Your task to perform on an android device: turn on showing notifications on the lock screen Image 0: 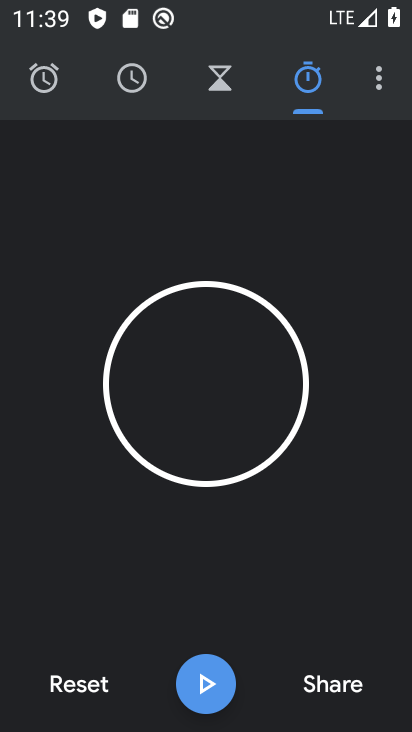
Step 0: press back button
Your task to perform on an android device: turn on showing notifications on the lock screen Image 1: 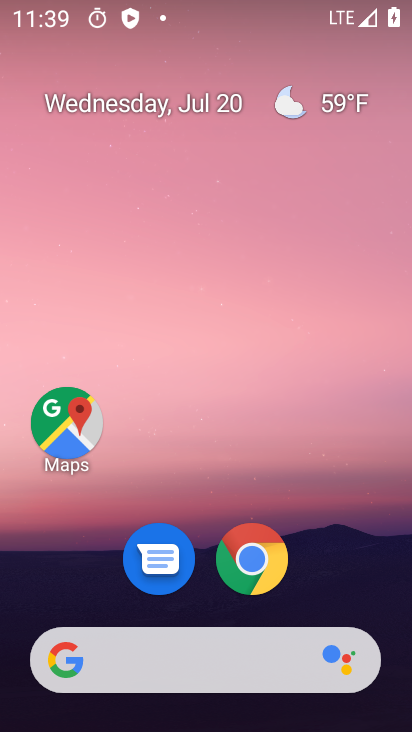
Step 1: drag from (65, 580) to (207, 37)
Your task to perform on an android device: turn on showing notifications on the lock screen Image 2: 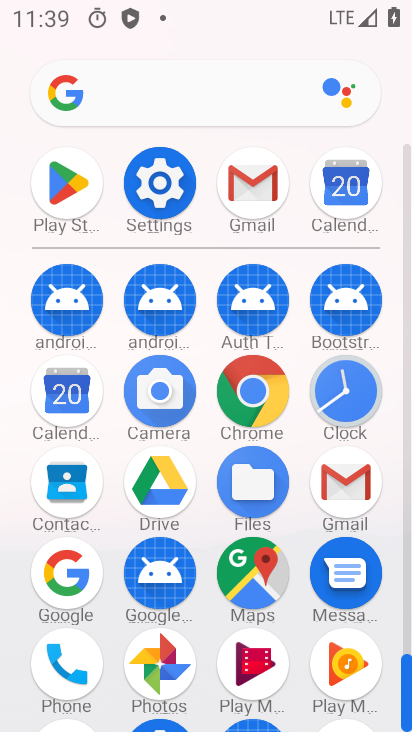
Step 2: click (142, 176)
Your task to perform on an android device: turn on showing notifications on the lock screen Image 3: 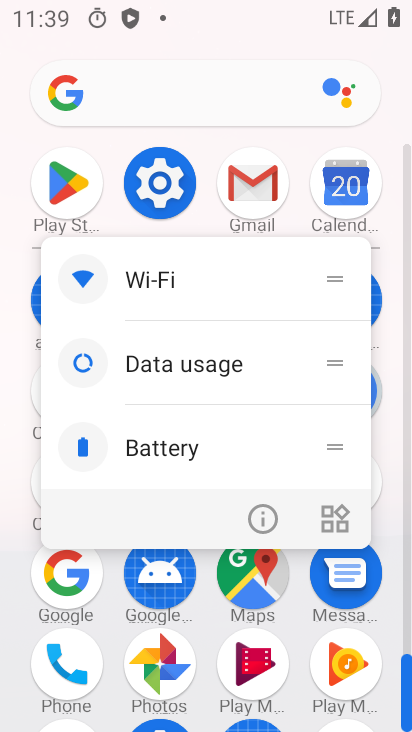
Step 3: click (162, 169)
Your task to perform on an android device: turn on showing notifications on the lock screen Image 4: 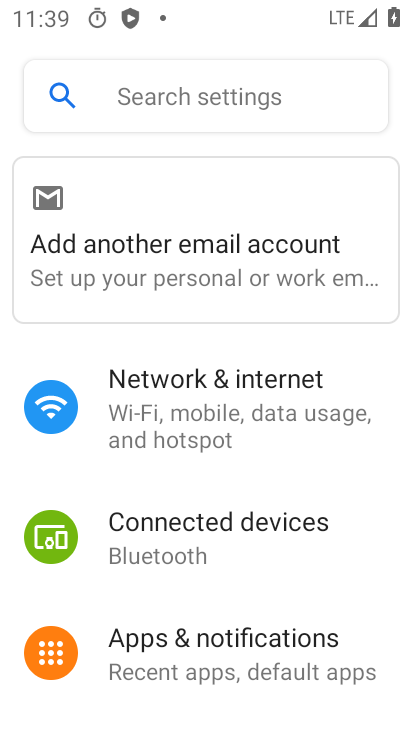
Step 4: click (195, 646)
Your task to perform on an android device: turn on showing notifications on the lock screen Image 5: 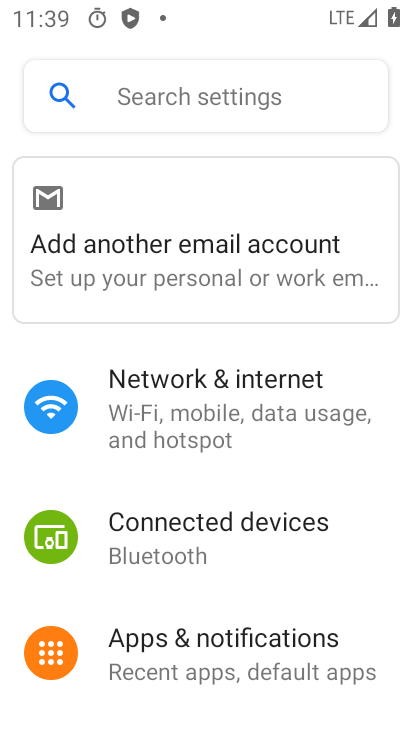
Step 5: drag from (193, 644) to (259, 375)
Your task to perform on an android device: turn on showing notifications on the lock screen Image 6: 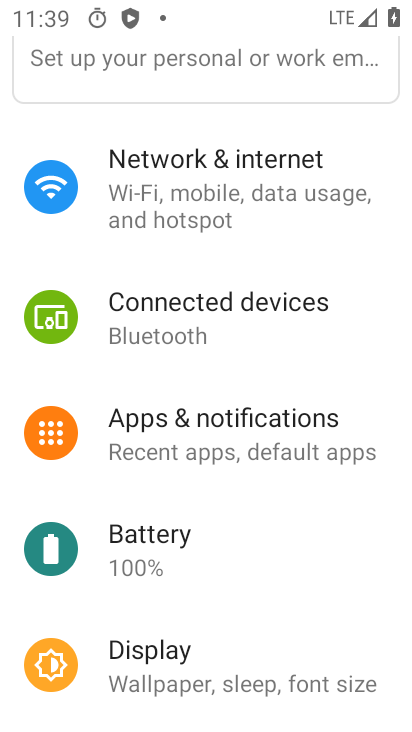
Step 6: click (199, 420)
Your task to perform on an android device: turn on showing notifications on the lock screen Image 7: 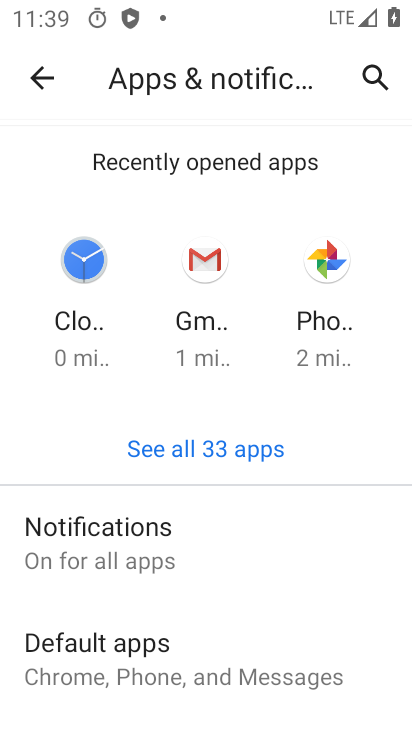
Step 7: drag from (181, 672) to (258, 258)
Your task to perform on an android device: turn on showing notifications on the lock screen Image 8: 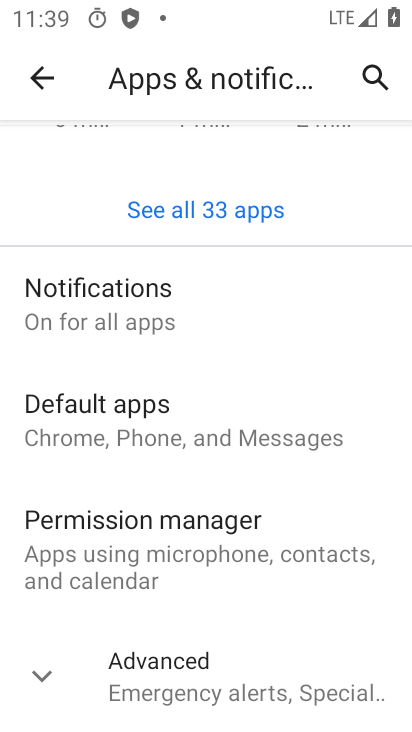
Step 8: click (178, 666)
Your task to perform on an android device: turn on showing notifications on the lock screen Image 9: 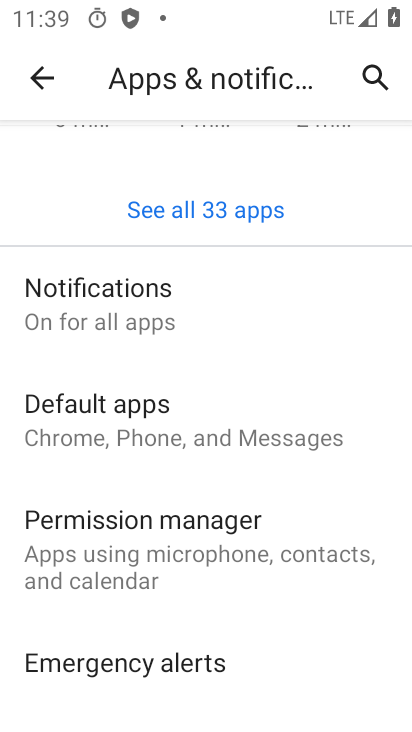
Step 9: drag from (174, 619) to (251, 242)
Your task to perform on an android device: turn on showing notifications on the lock screen Image 10: 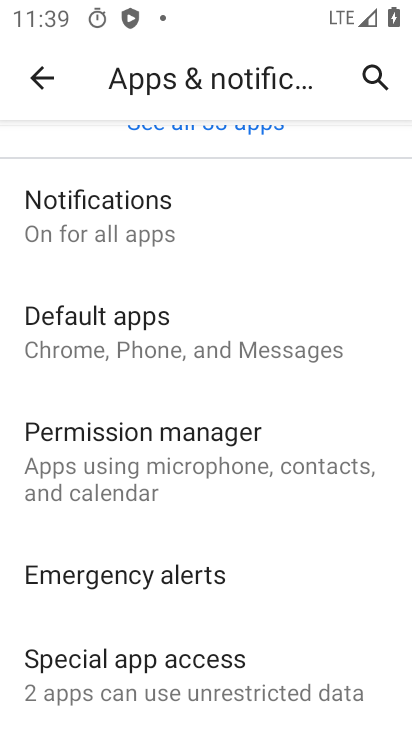
Step 10: drag from (163, 302) to (163, 532)
Your task to perform on an android device: turn on showing notifications on the lock screen Image 11: 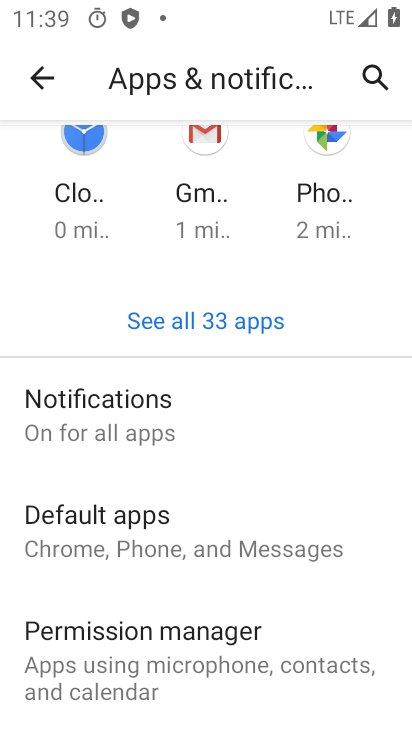
Step 11: click (110, 409)
Your task to perform on an android device: turn on showing notifications on the lock screen Image 12: 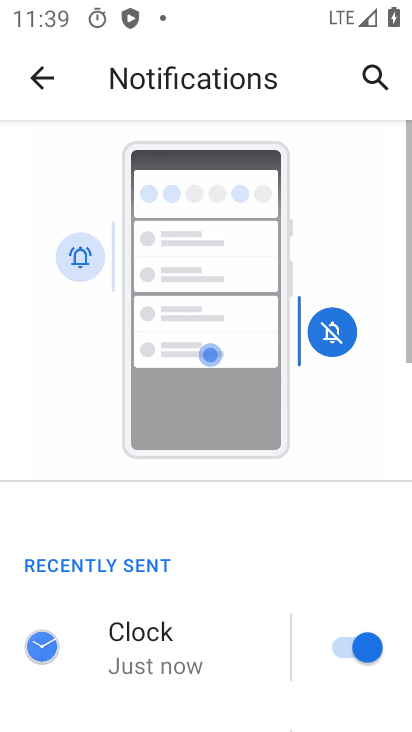
Step 12: drag from (125, 665) to (217, 63)
Your task to perform on an android device: turn on showing notifications on the lock screen Image 13: 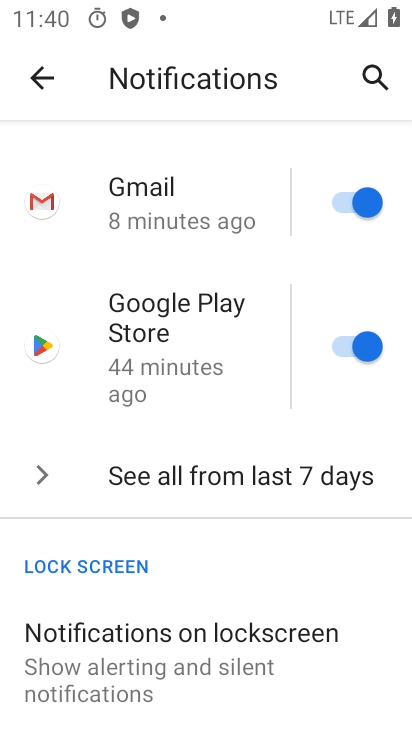
Step 13: click (147, 645)
Your task to perform on an android device: turn on showing notifications on the lock screen Image 14: 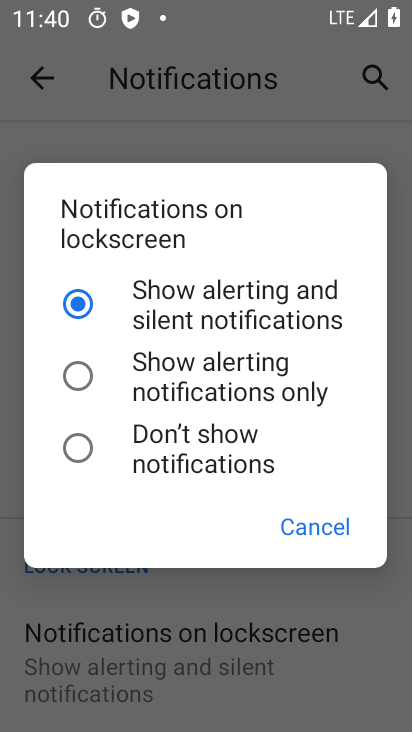
Step 14: task complete